Your task to perform on an android device: Open Maps and search for coffee Image 0: 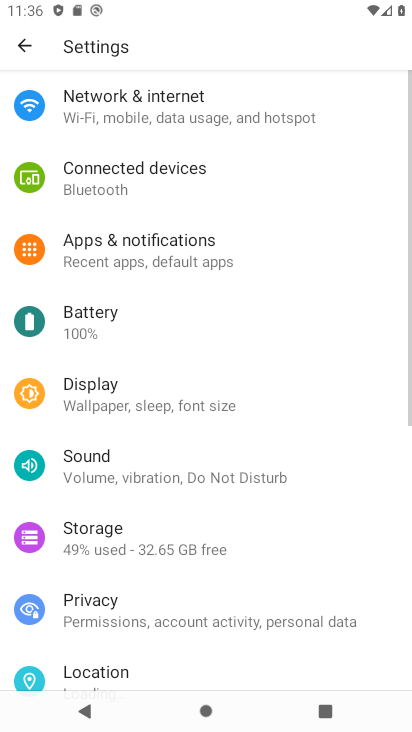
Step 0: press home button
Your task to perform on an android device: Open Maps and search for coffee Image 1: 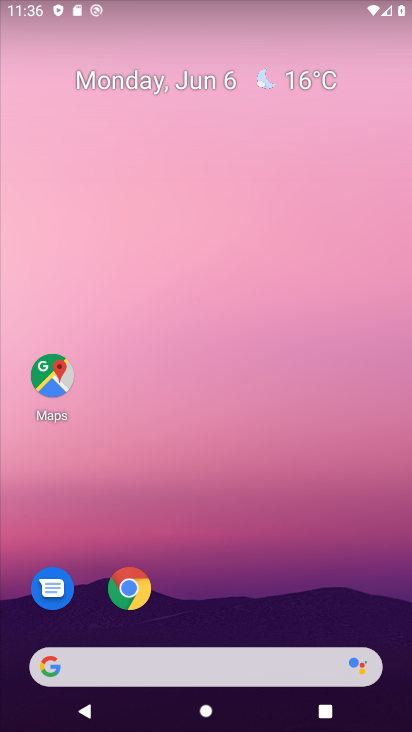
Step 1: click (41, 366)
Your task to perform on an android device: Open Maps and search for coffee Image 2: 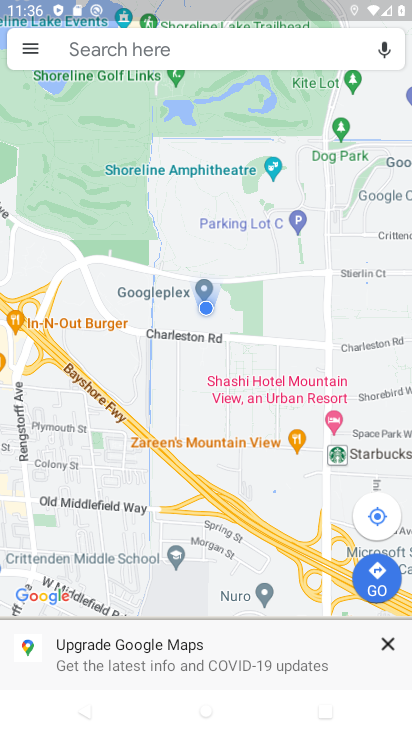
Step 2: click (228, 45)
Your task to perform on an android device: Open Maps and search for coffee Image 3: 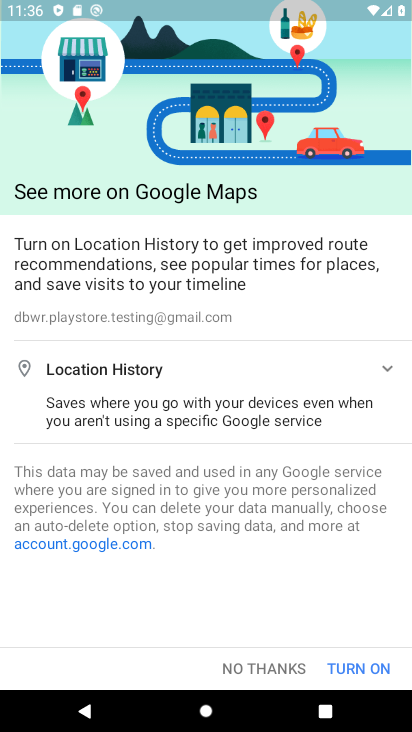
Step 3: click (365, 676)
Your task to perform on an android device: Open Maps and search for coffee Image 4: 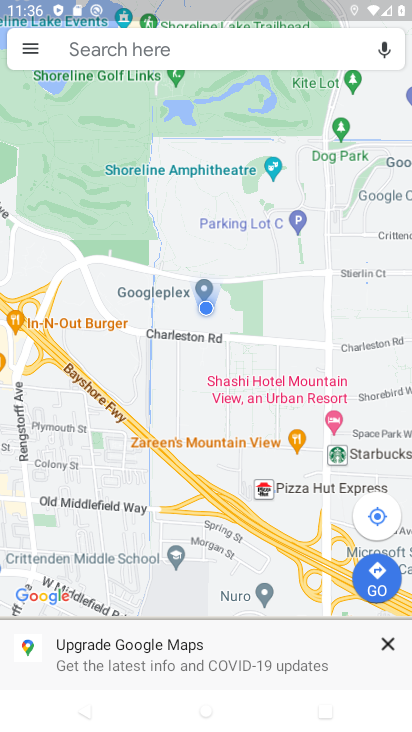
Step 4: click (194, 40)
Your task to perform on an android device: Open Maps and search for coffee Image 5: 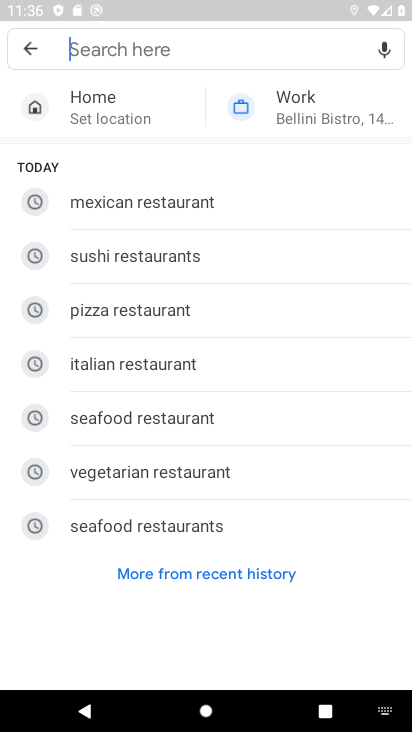
Step 5: type "coffee"
Your task to perform on an android device: Open Maps and search for coffee Image 6: 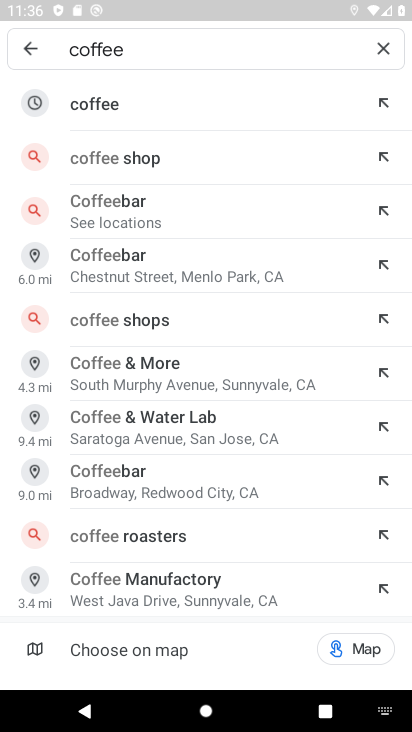
Step 6: click (120, 95)
Your task to perform on an android device: Open Maps and search for coffee Image 7: 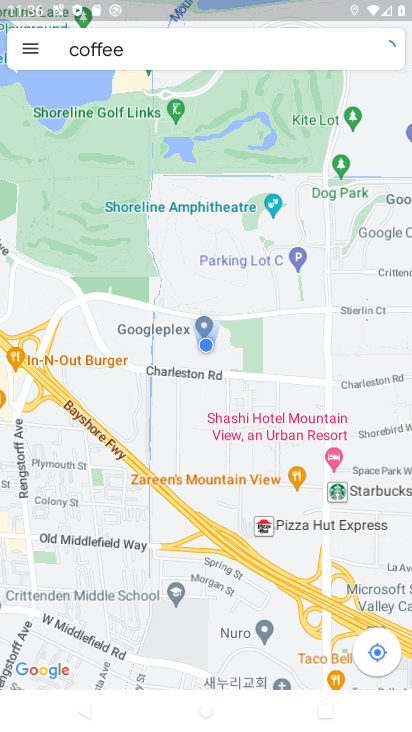
Step 7: task complete